Your task to perform on an android device: Open Yahoo.com Image 0: 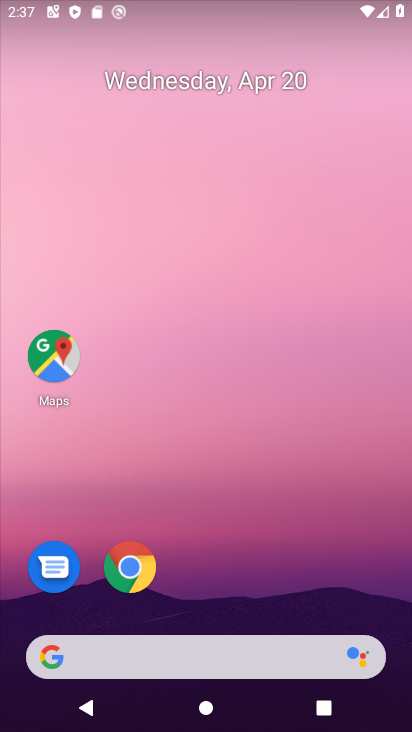
Step 0: click (148, 563)
Your task to perform on an android device: Open Yahoo.com Image 1: 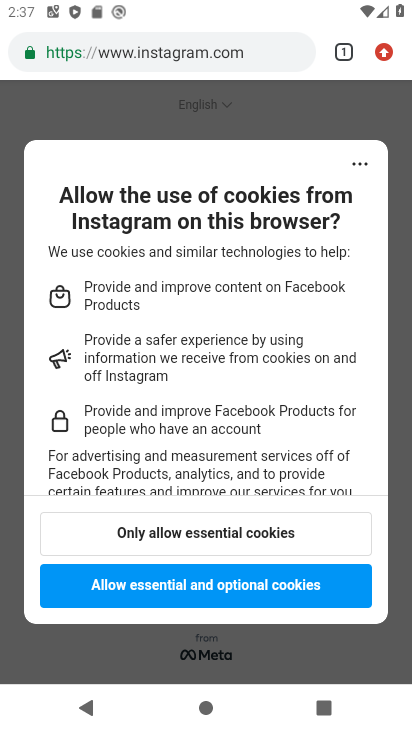
Step 1: click (172, 49)
Your task to perform on an android device: Open Yahoo.com Image 2: 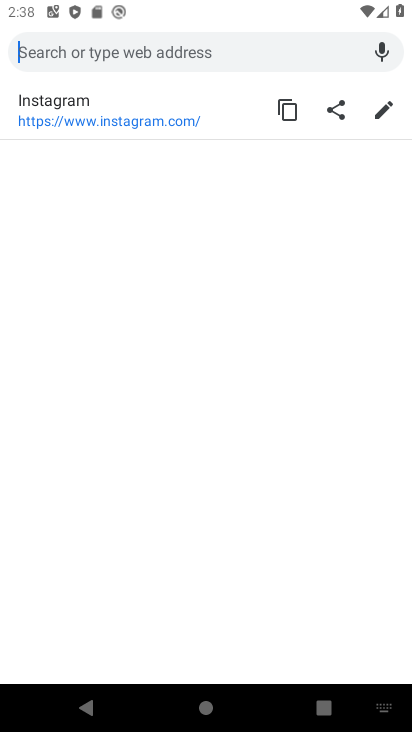
Step 2: type "yahoo.com"
Your task to perform on an android device: Open Yahoo.com Image 3: 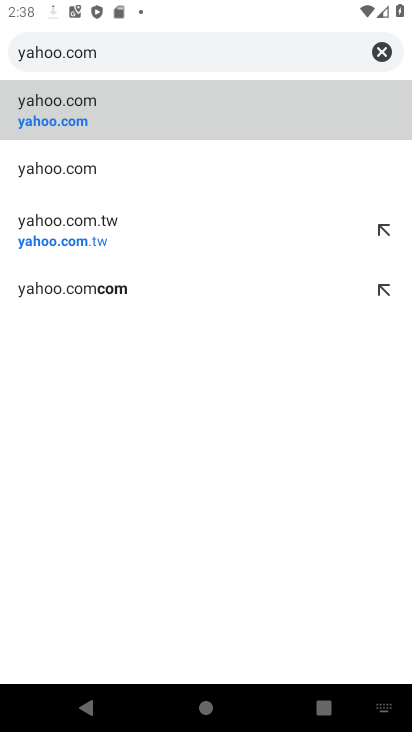
Step 3: click (187, 100)
Your task to perform on an android device: Open Yahoo.com Image 4: 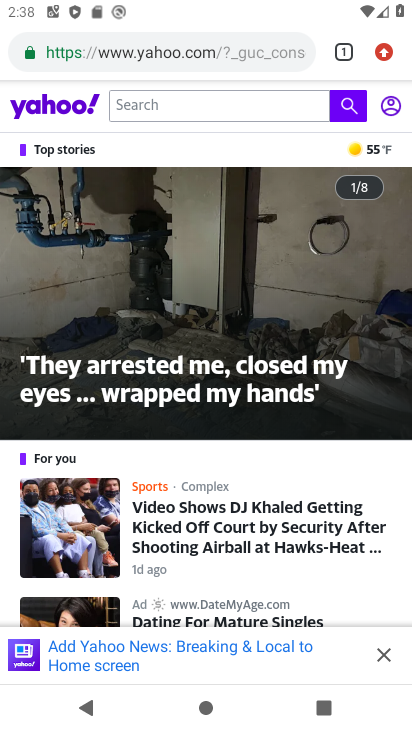
Step 4: task complete